Your task to perform on an android device: toggle notifications settings in the gmail app Image 0: 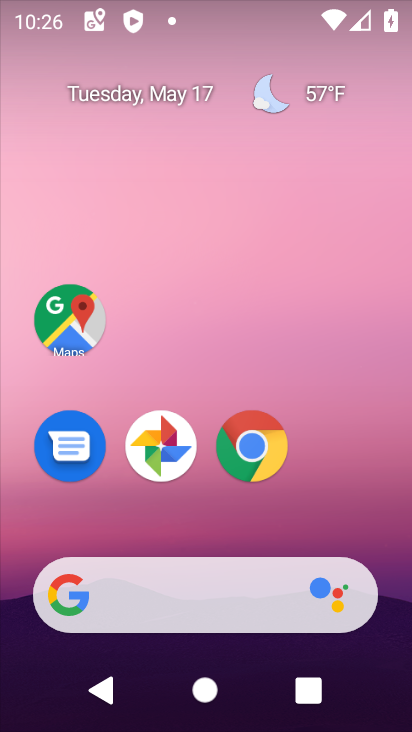
Step 0: drag from (212, 581) to (203, 110)
Your task to perform on an android device: toggle notifications settings in the gmail app Image 1: 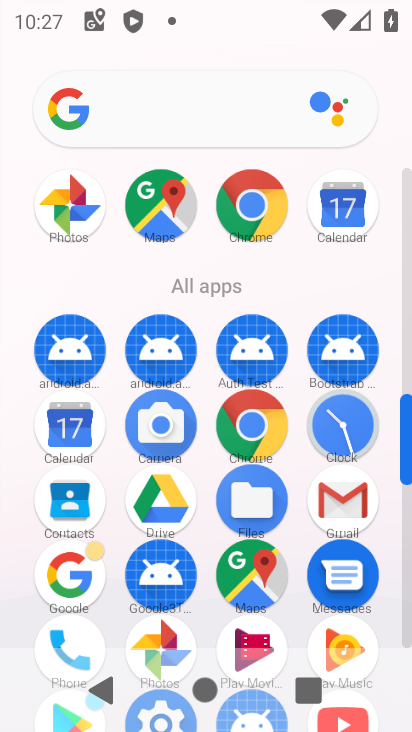
Step 1: click (353, 496)
Your task to perform on an android device: toggle notifications settings in the gmail app Image 2: 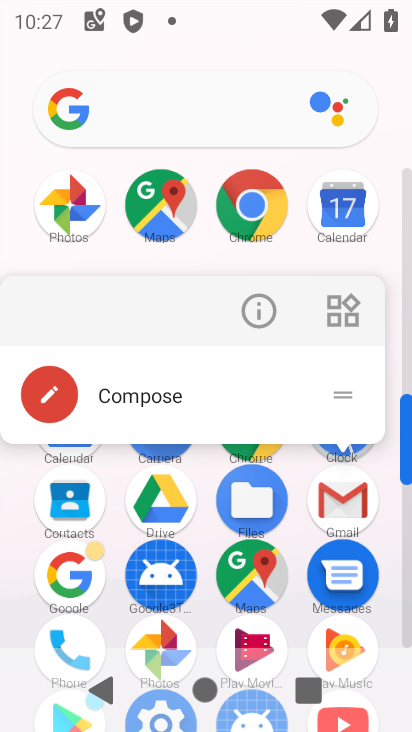
Step 2: click (345, 501)
Your task to perform on an android device: toggle notifications settings in the gmail app Image 3: 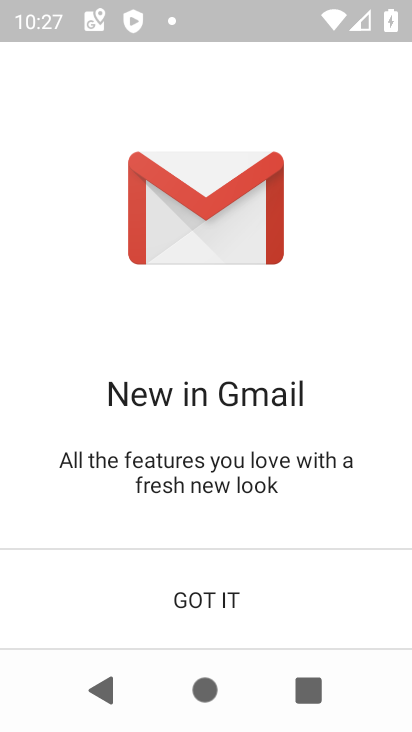
Step 3: click (223, 582)
Your task to perform on an android device: toggle notifications settings in the gmail app Image 4: 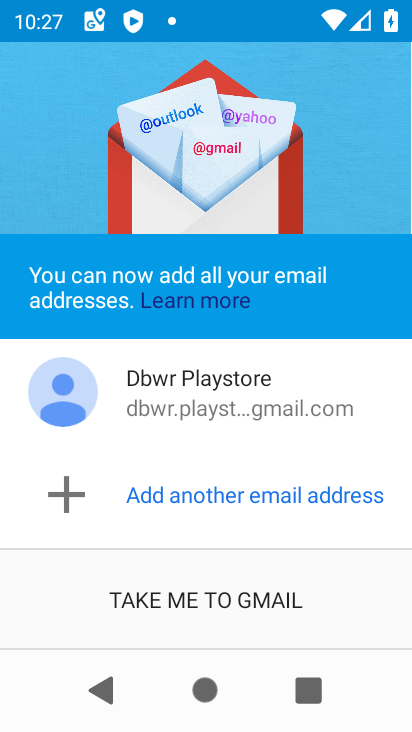
Step 4: click (204, 601)
Your task to perform on an android device: toggle notifications settings in the gmail app Image 5: 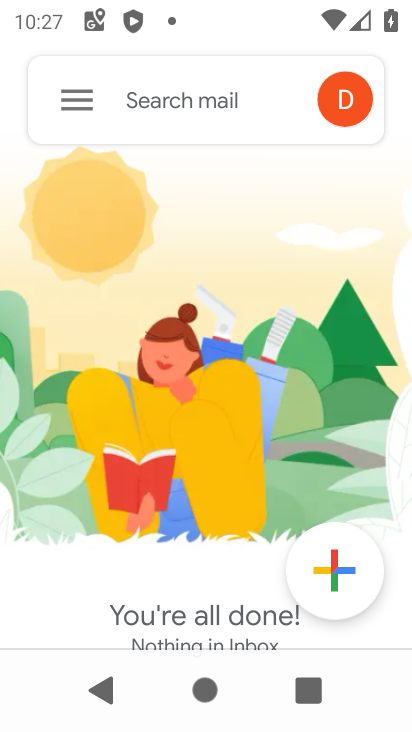
Step 5: click (64, 102)
Your task to perform on an android device: toggle notifications settings in the gmail app Image 6: 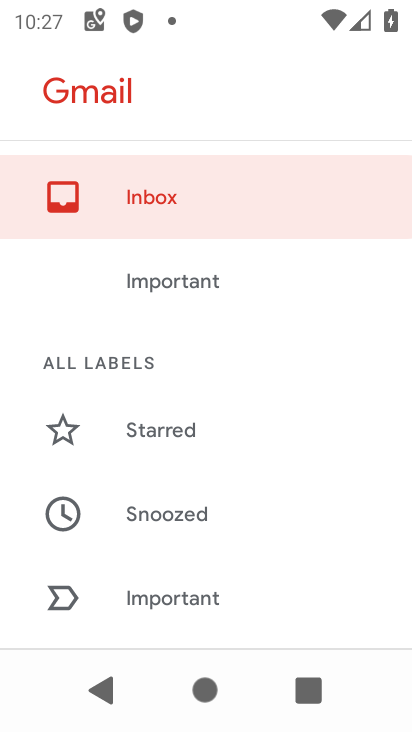
Step 6: drag from (214, 570) to (190, 175)
Your task to perform on an android device: toggle notifications settings in the gmail app Image 7: 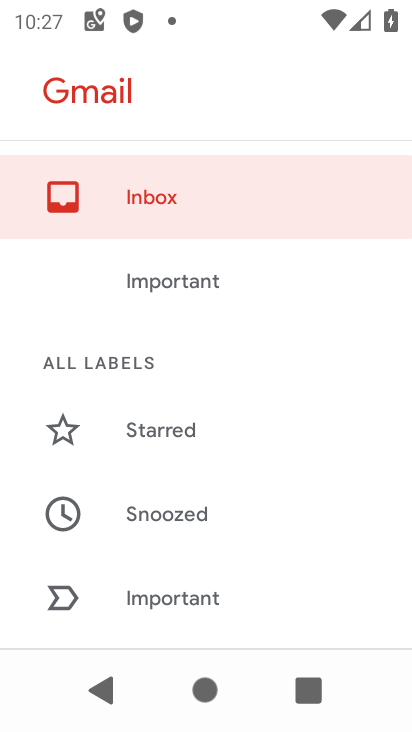
Step 7: drag from (243, 514) to (253, 205)
Your task to perform on an android device: toggle notifications settings in the gmail app Image 8: 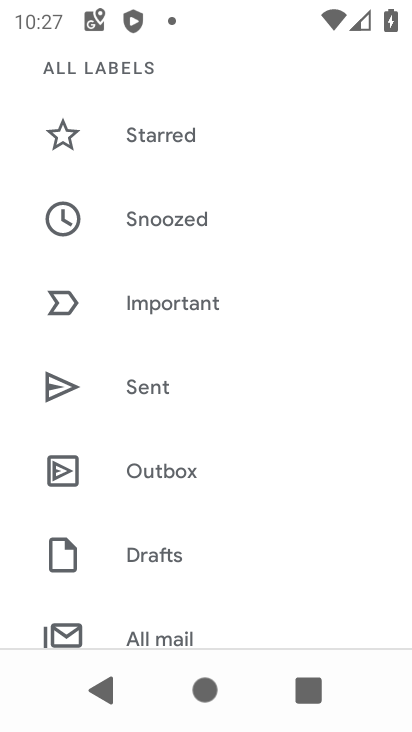
Step 8: drag from (176, 592) to (206, 313)
Your task to perform on an android device: toggle notifications settings in the gmail app Image 9: 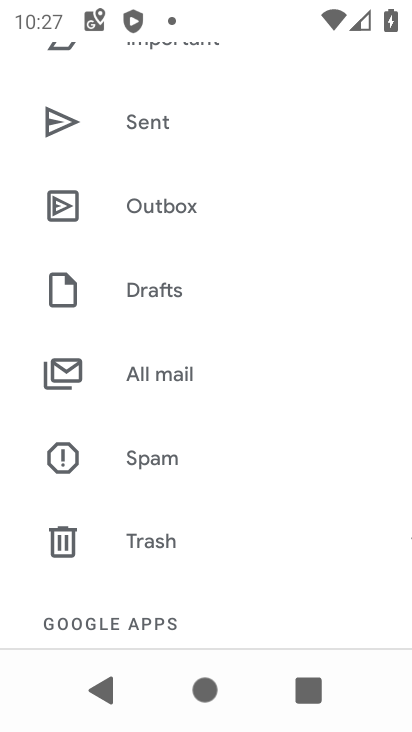
Step 9: drag from (194, 549) to (186, 40)
Your task to perform on an android device: toggle notifications settings in the gmail app Image 10: 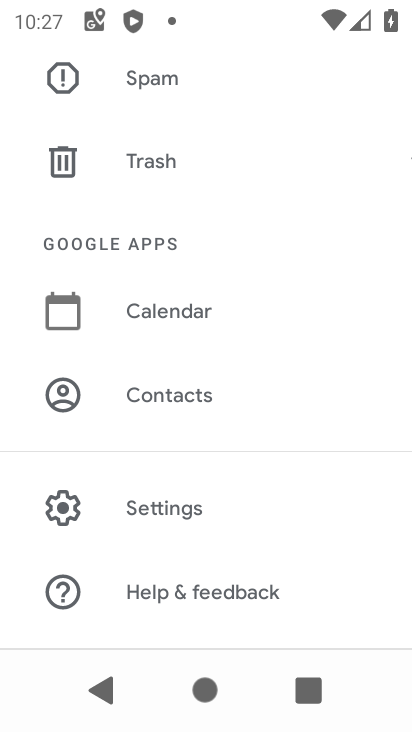
Step 10: click (201, 516)
Your task to perform on an android device: toggle notifications settings in the gmail app Image 11: 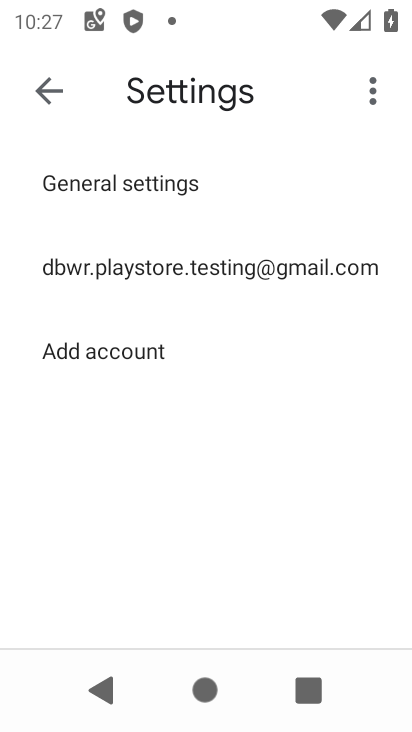
Step 11: click (191, 272)
Your task to perform on an android device: toggle notifications settings in the gmail app Image 12: 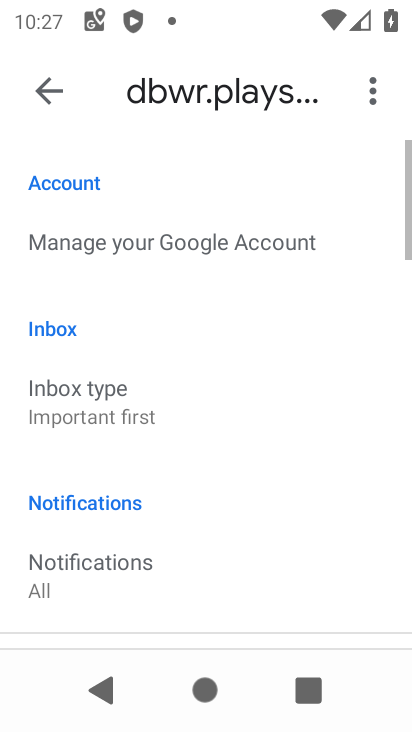
Step 12: drag from (165, 481) to (151, 126)
Your task to perform on an android device: toggle notifications settings in the gmail app Image 13: 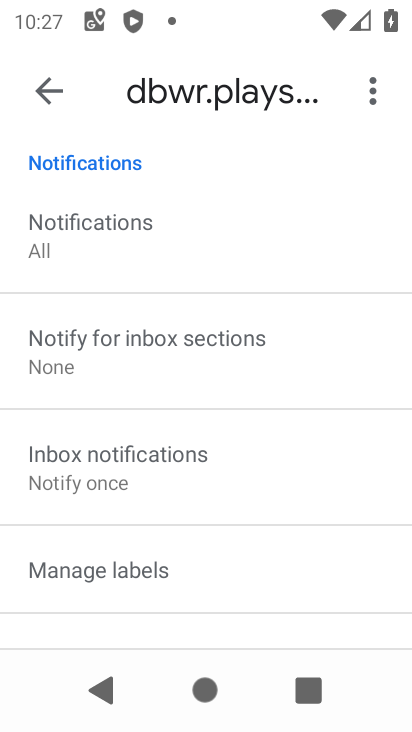
Step 13: drag from (206, 488) to (195, 181)
Your task to perform on an android device: toggle notifications settings in the gmail app Image 14: 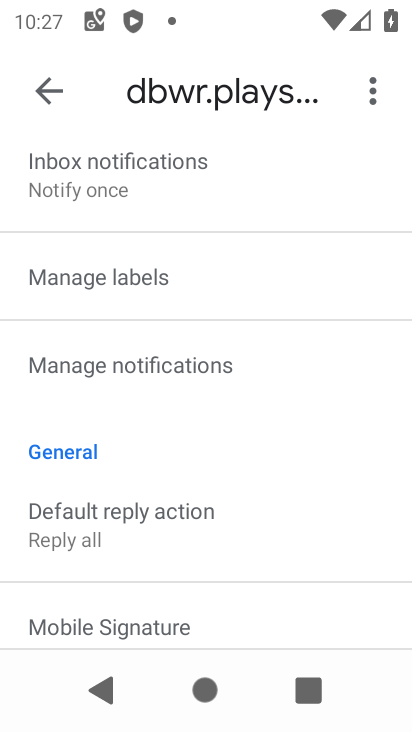
Step 14: click (140, 366)
Your task to perform on an android device: toggle notifications settings in the gmail app Image 15: 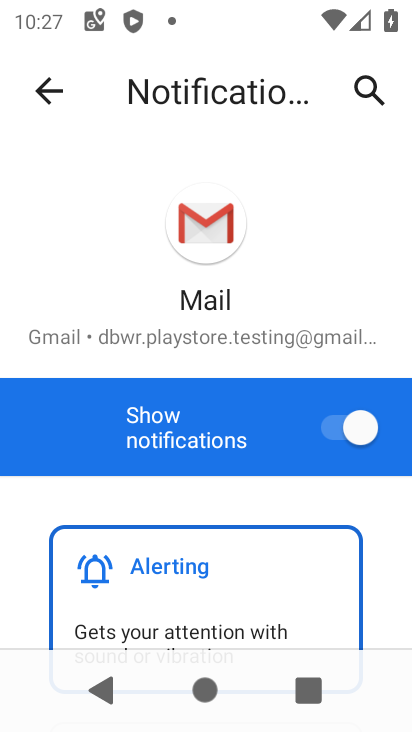
Step 15: click (336, 444)
Your task to perform on an android device: toggle notifications settings in the gmail app Image 16: 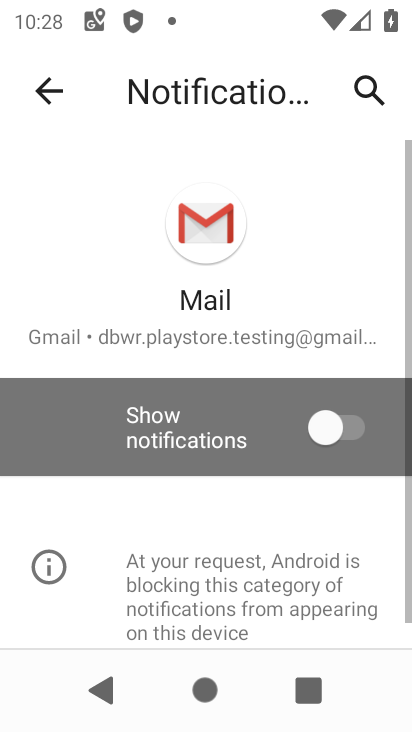
Step 16: task complete